Your task to perform on an android device: Go to Wikipedia Image 0: 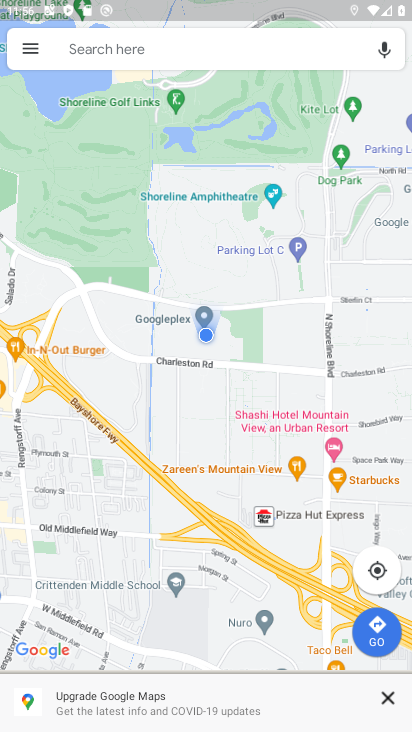
Step 0: press home button
Your task to perform on an android device: Go to Wikipedia Image 1: 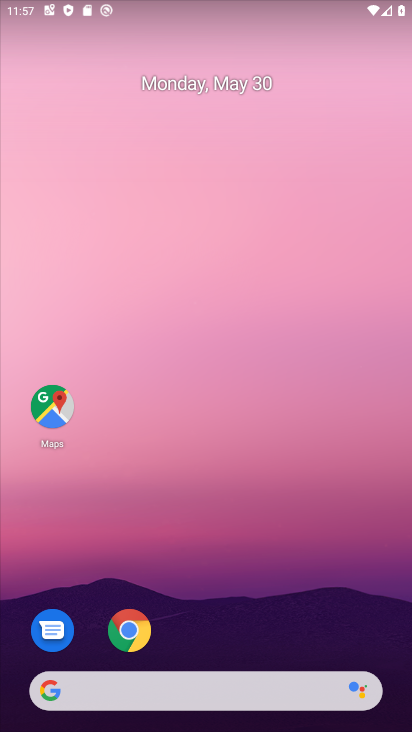
Step 1: click (131, 628)
Your task to perform on an android device: Go to Wikipedia Image 2: 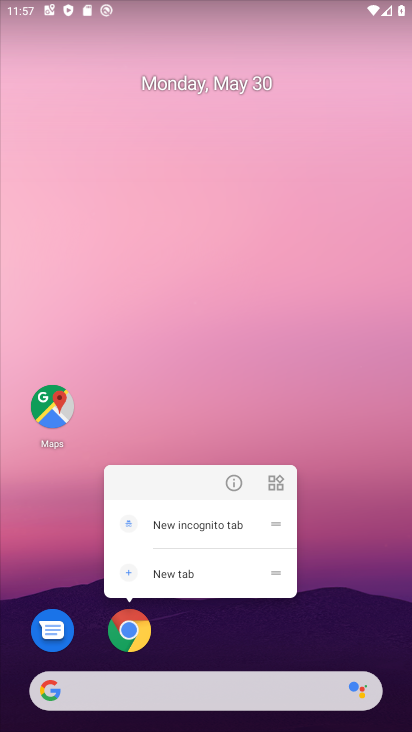
Step 2: click (141, 638)
Your task to perform on an android device: Go to Wikipedia Image 3: 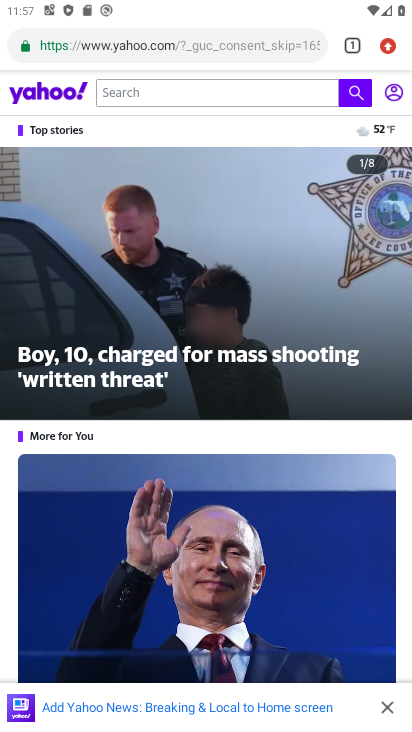
Step 3: drag from (279, 141) to (225, 349)
Your task to perform on an android device: Go to Wikipedia Image 4: 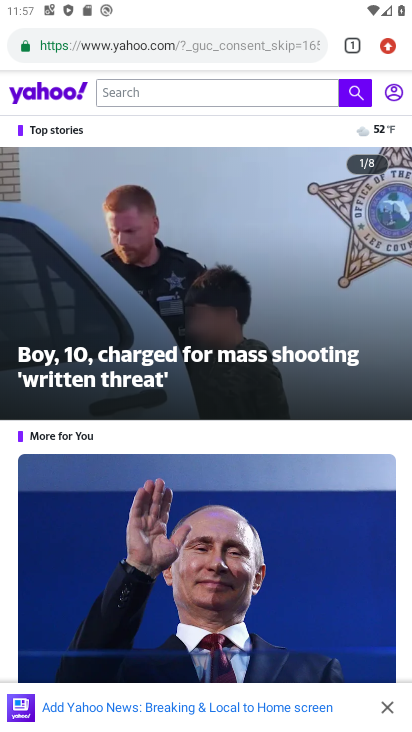
Step 4: click (391, 54)
Your task to perform on an android device: Go to Wikipedia Image 5: 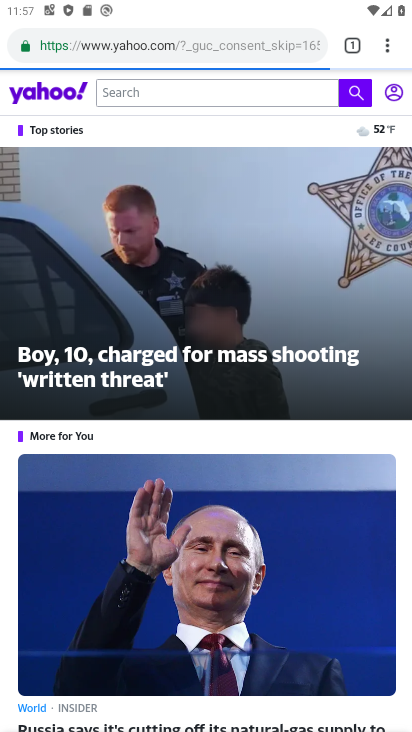
Step 5: drag from (388, 49) to (290, 142)
Your task to perform on an android device: Go to Wikipedia Image 6: 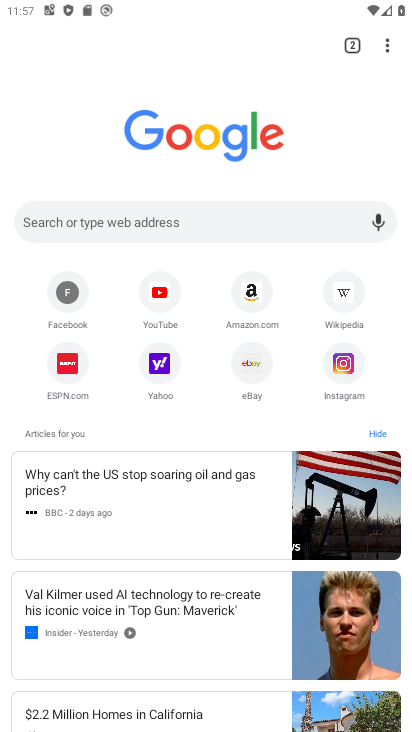
Step 6: click (338, 293)
Your task to perform on an android device: Go to Wikipedia Image 7: 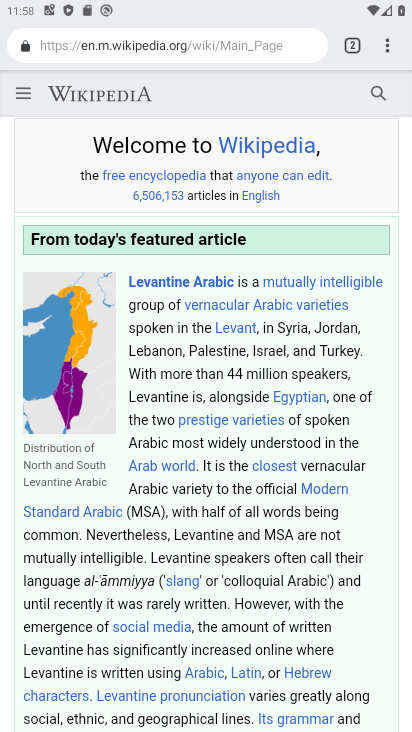
Step 7: task complete